Your task to perform on an android device: What's the weather going to be this weekend? Image 0: 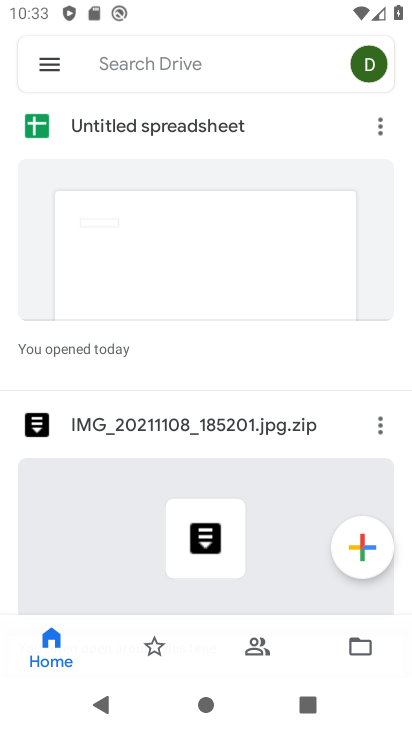
Step 0: press home button
Your task to perform on an android device: What's the weather going to be this weekend? Image 1: 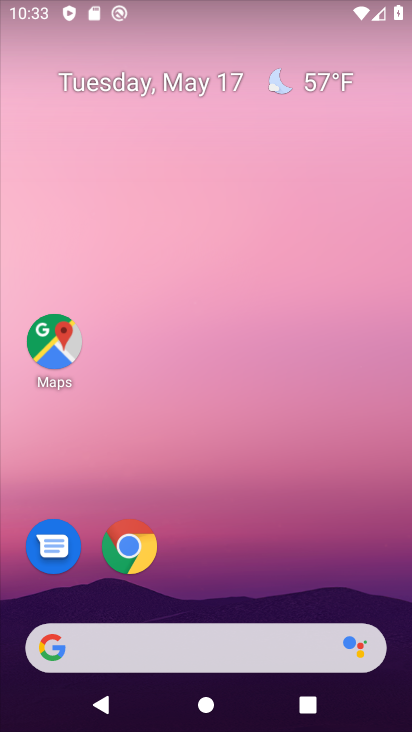
Step 1: drag from (278, 572) to (297, 106)
Your task to perform on an android device: What's the weather going to be this weekend? Image 2: 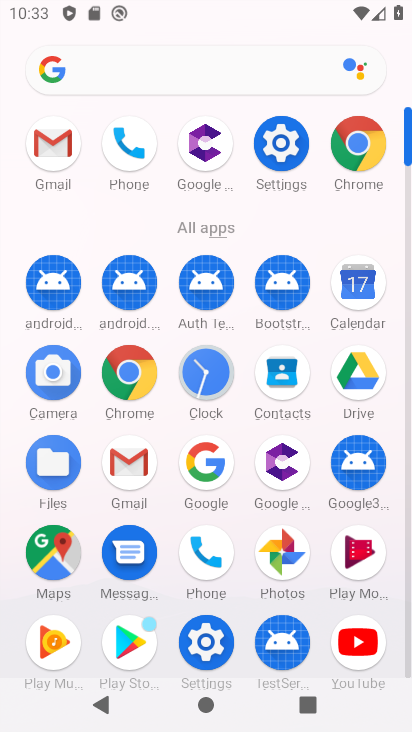
Step 2: click (204, 480)
Your task to perform on an android device: What's the weather going to be this weekend? Image 3: 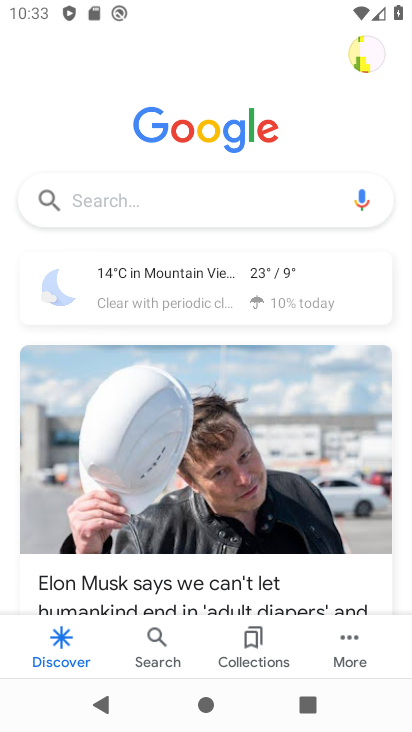
Step 3: click (168, 197)
Your task to perform on an android device: What's the weather going to be this weekend? Image 4: 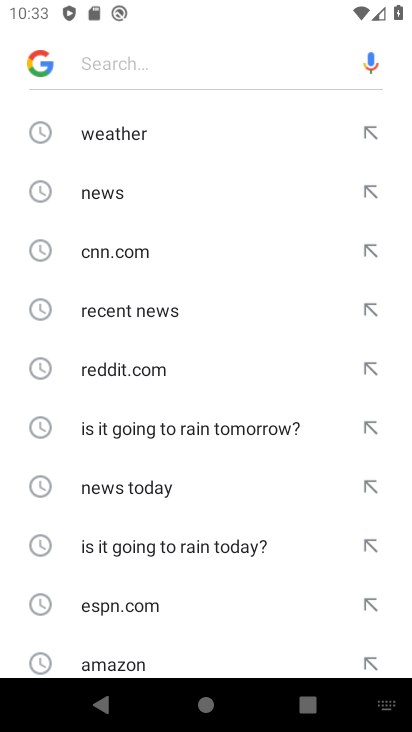
Step 4: drag from (198, 581) to (227, 182)
Your task to perform on an android device: What's the weather going to be this weekend? Image 5: 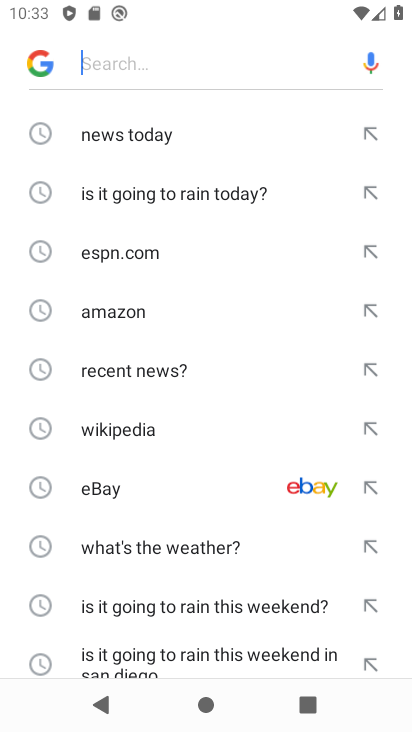
Step 5: drag from (225, 590) to (281, 596)
Your task to perform on an android device: What's the weather going to be this weekend? Image 6: 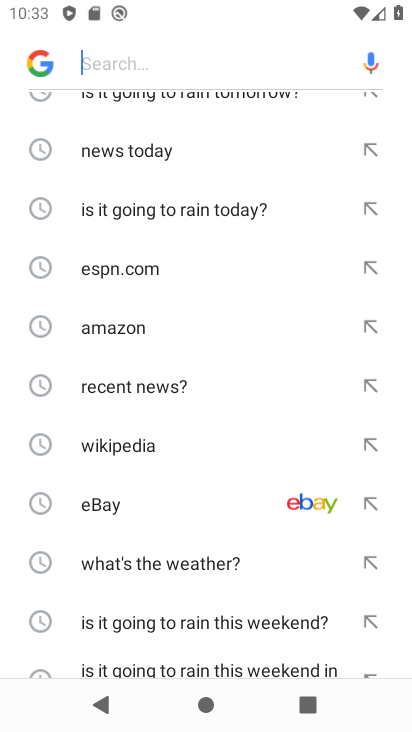
Step 6: click (183, 60)
Your task to perform on an android device: What's the weather going to be this weekend? Image 7: 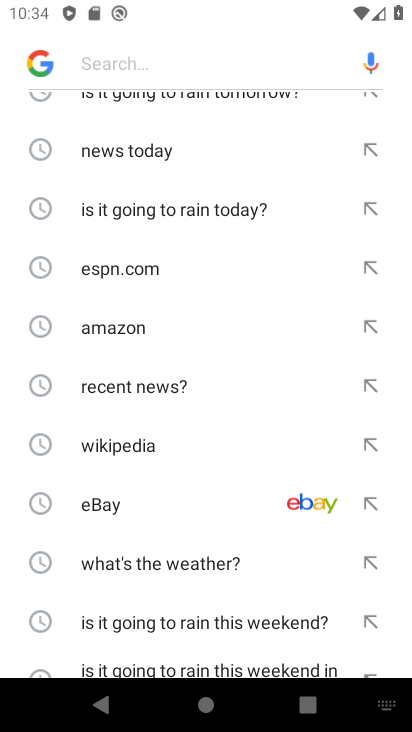
Step 7: type "What's the weather going to be this weekend"
Your task to perform on an android device: What's the weather going to be this weekend? Image 8: 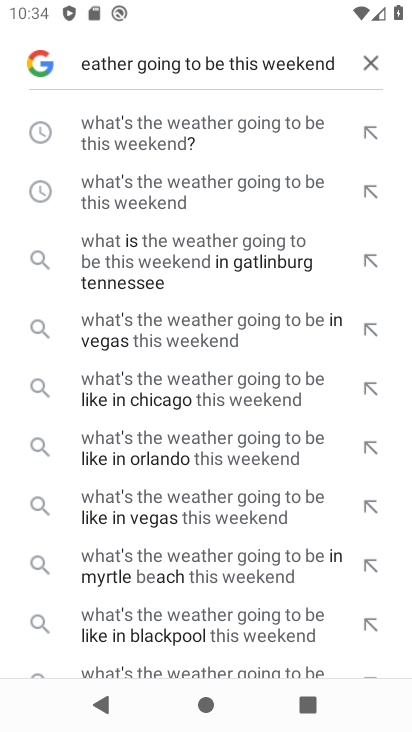
Step 8: click (220, 145)
Your task to perform on an android device: What's the weather going to be this weekend? Image 9: 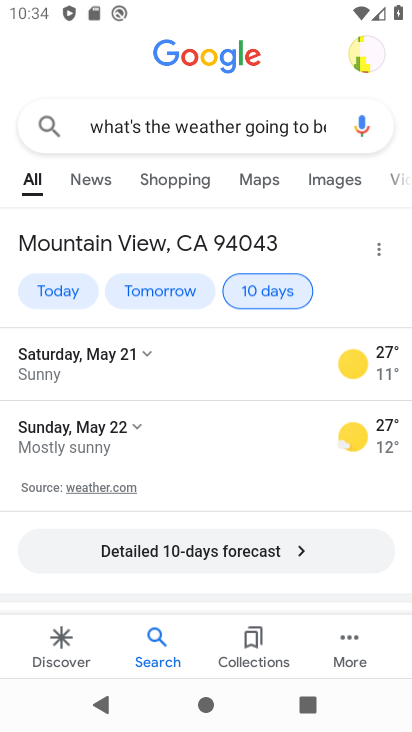
Step 9: task complete